Your task to perform on an android device: Open wifi settings Image 0: 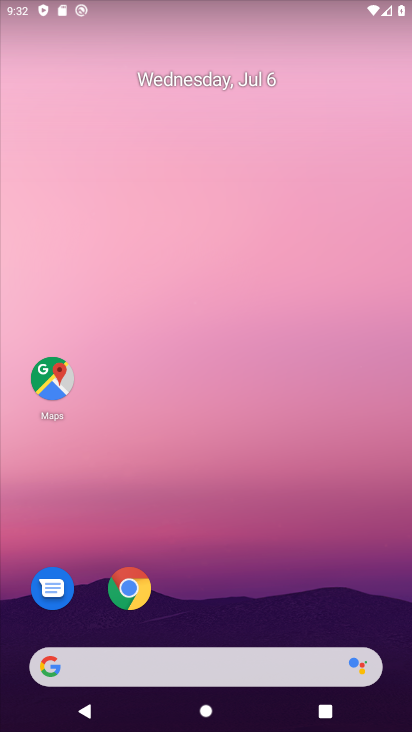
Step 0: drag from (219, 593) to (256, 151)
Your task to perform on an android device: Open wifi settings Image 1: 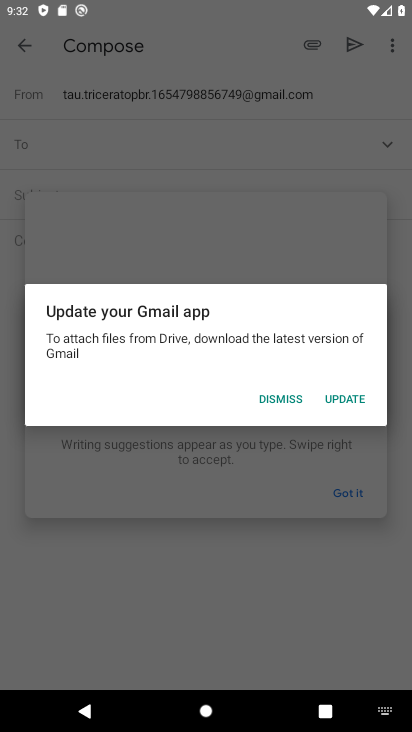
Step 1: press home button
Your task to perform on an android device: Open wifi settings Image 2: 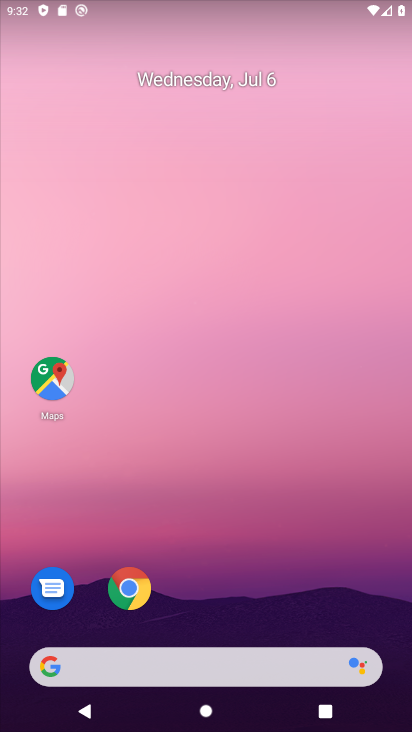
Step 2: drag from (144, 637) to (191, 52)
Your task to perform on an android device: Open wifi settings Image 3: 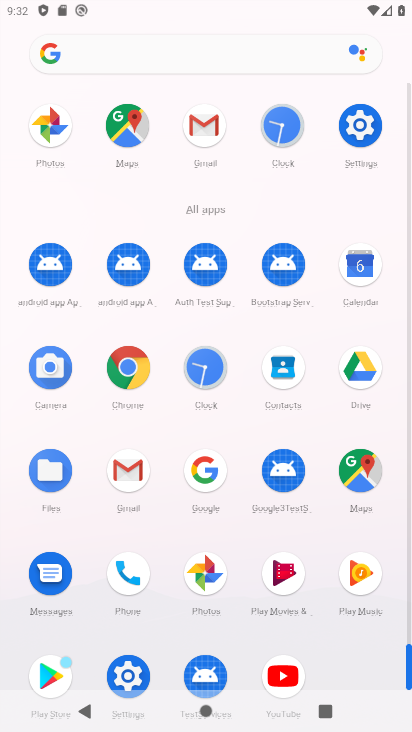
Step 3: click (131, 674)
Your task to perform on an android device: Open wifi settings Image 4: 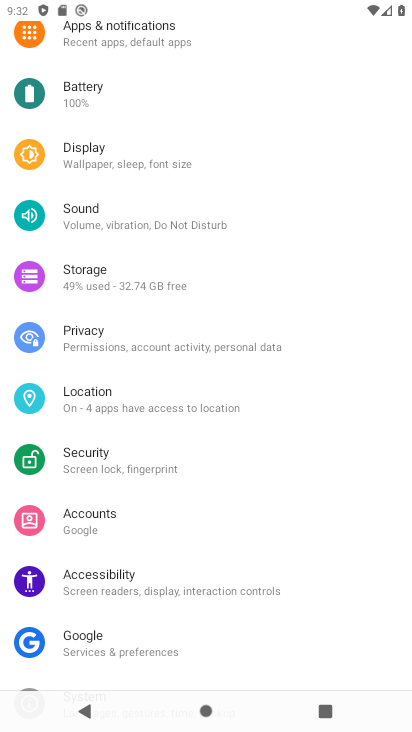
Step 4: drag from (235, 166) to (200, 581)
Your task to perform on an android device: Open wifi settings Image 5: 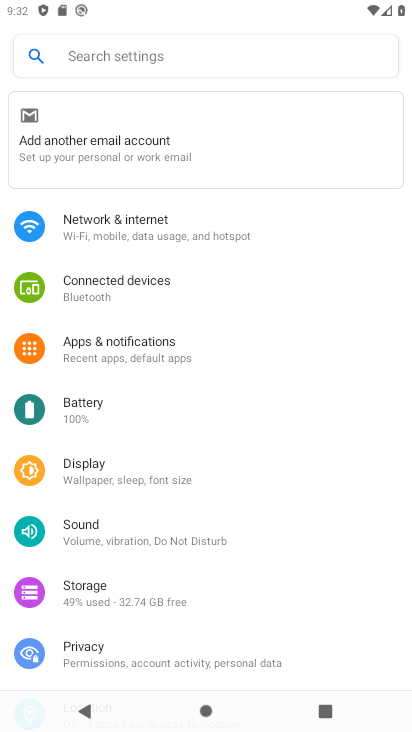
Step 5: click (228, 235)
Your task to perform on an android device: Open wifi settings Image 6: 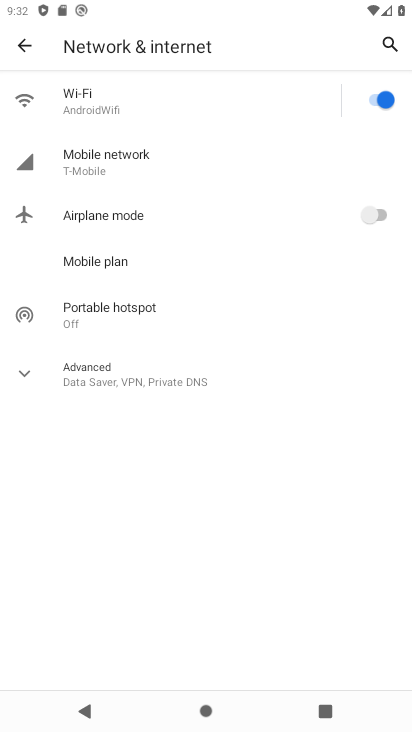
Step 6: click (171, 108)
Your task to perform on an android device: Open wifi settings Image 7: 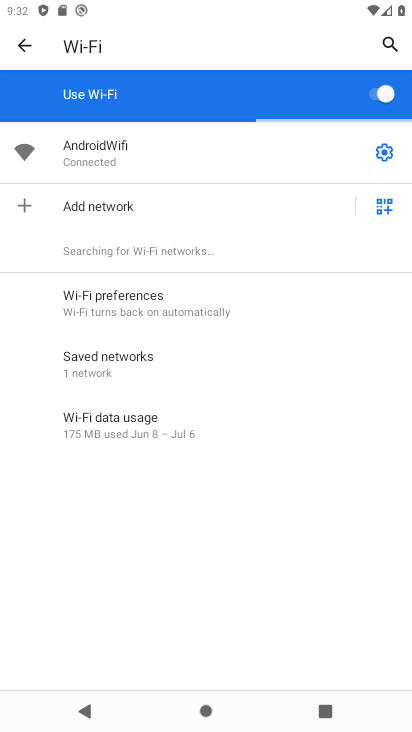
Step 7: task complete